Your task to perform on an android device: Turn off the flashlight Image 0: 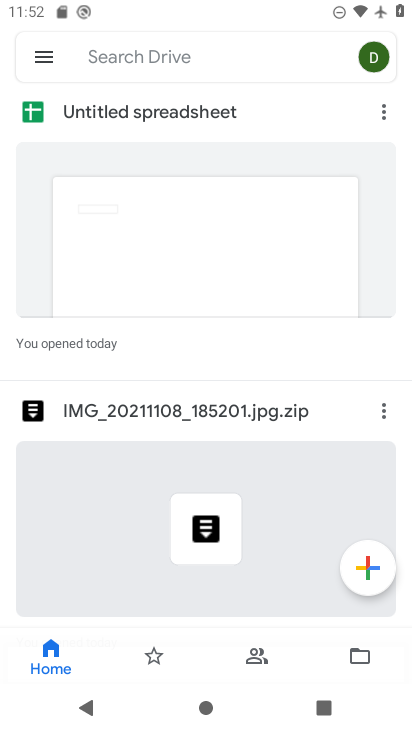
Step 0: task impossible